Your task to perform on an android device: snooze an email in the gmail app Image 0: 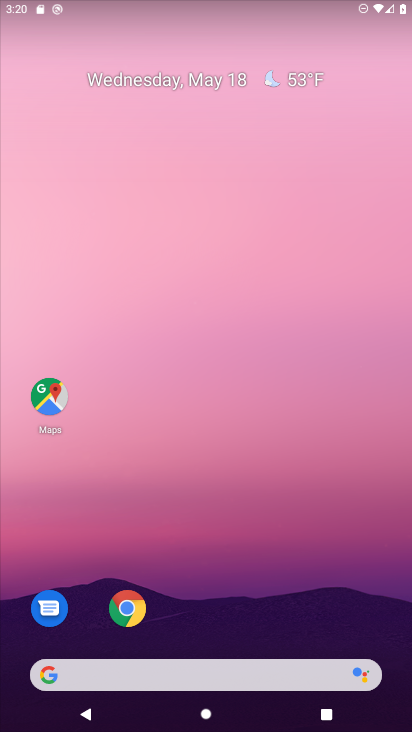
Step 0: drag from (157, 660) to (173, 301)
Your task to perform on an android device: snooze an email in the gmail app Image 1: 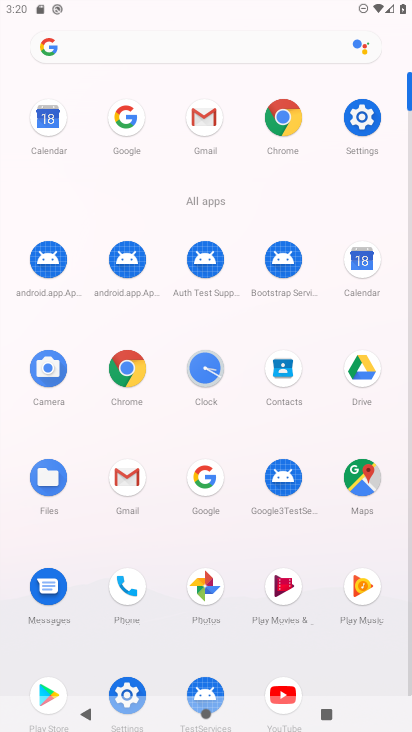
Step 1: click (130, 478)
Your task to perform on an android device: snooze an email in the gmail app Image 2: 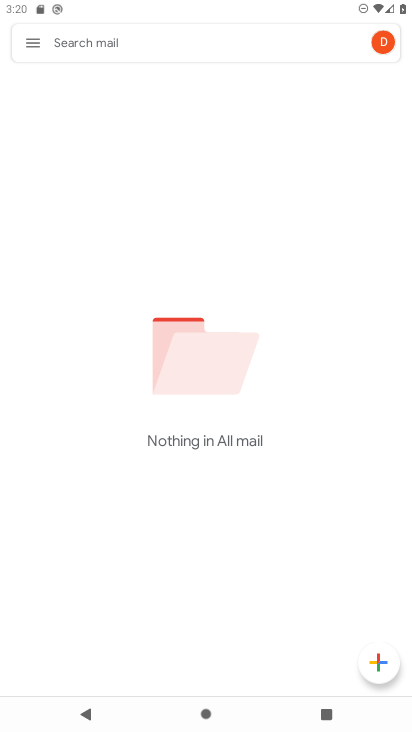
Step 2: click (28, 44)
Your task to perform on an android device: snooze an email in the gmail app Image 3: 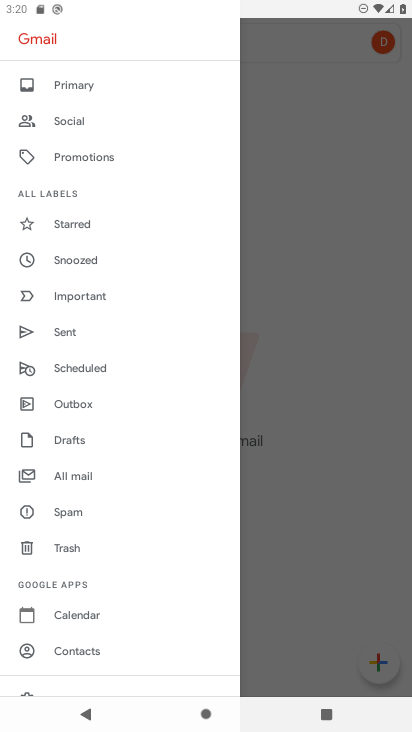
Step 3: click (71, 262)
Your task to perform on an android device: snooze an email in the gmail app Image 4: 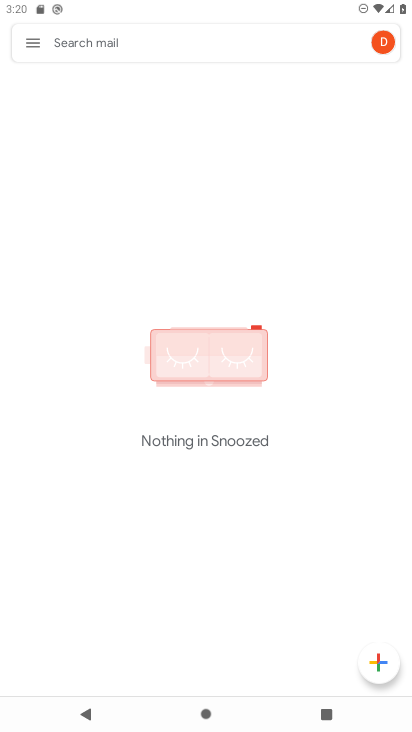
Step 4: task complete